Your task to perform on an android device: Go to CNN.com Image 0: 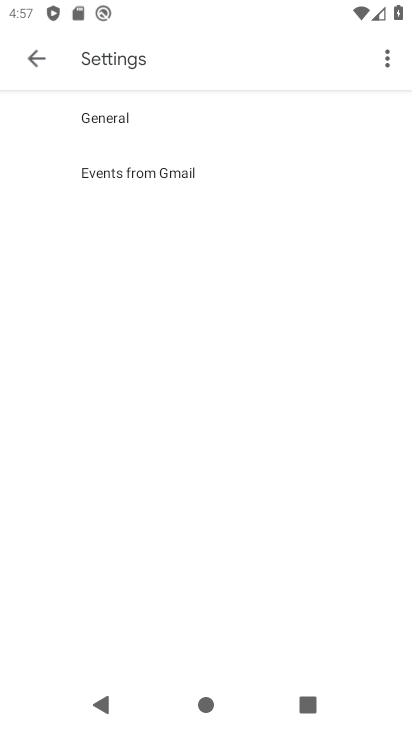
Step 0: click (36, 62)
Your task to perform on an android device: Go to CNN.com Image 1: 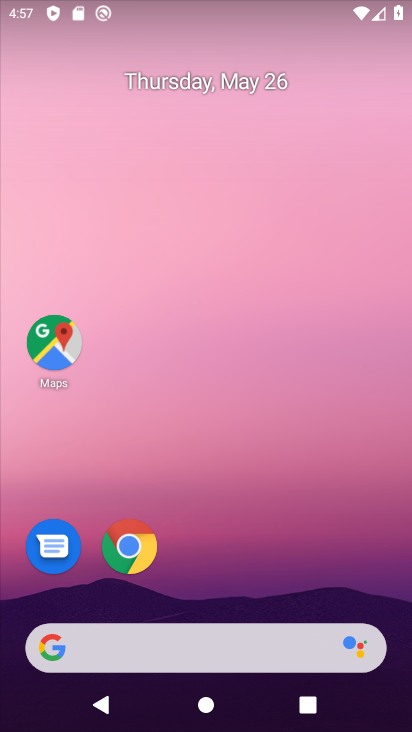
Step 1: drag from (249, 559) to (256, 120)
Your task to perform on an android device: Go to CNN.com Image 2: 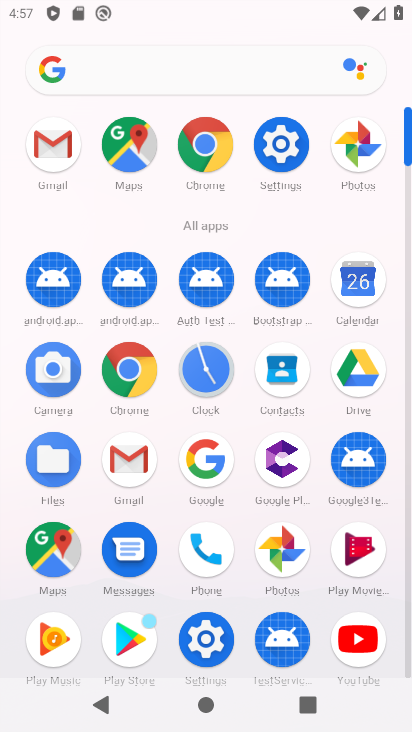
Step 2: click (208, 140)
Your task to perform on an android device: Go to CNN.com Image 3: 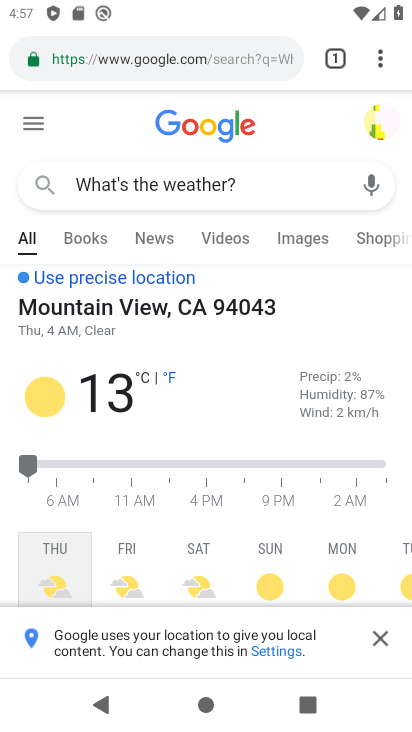
Step 3: click (214, 65)
Your task to perform on an android device: Go to CNN.com Image 4: 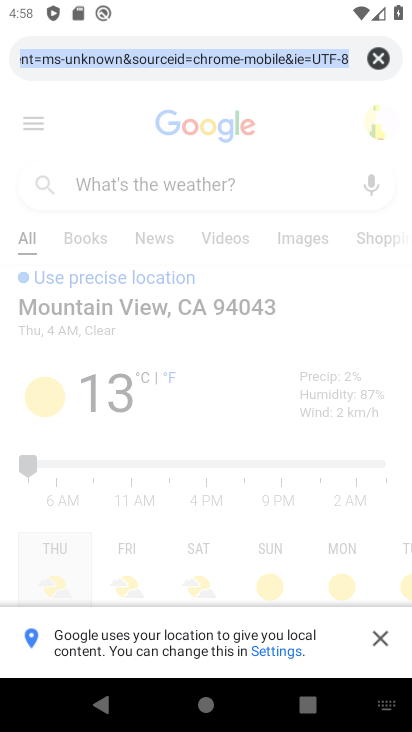
Step 4: type "cnn.com"
Your task to perform on an android device: Go to CNN.com Image 5: 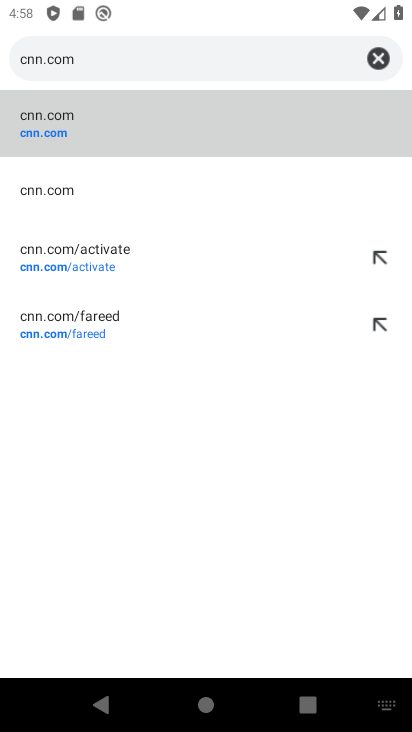
Step 5: click (57, 133)
Your task to perform on an android device: Go to CNN.com Image 6: 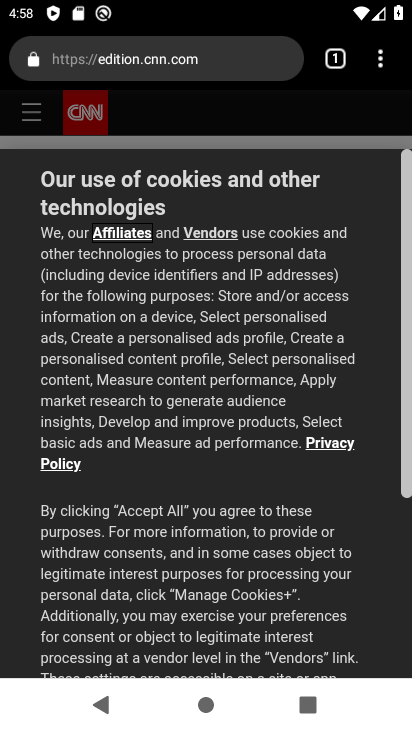
Step 6: task complete